Your task to perform on an android device: toggle location history Image 0: 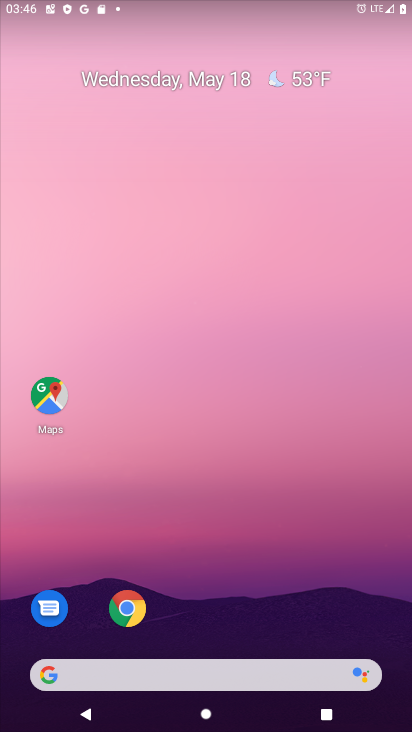
Step 0: click (48, 398)
Your task to perform on an android device: toggle location history Image 1: 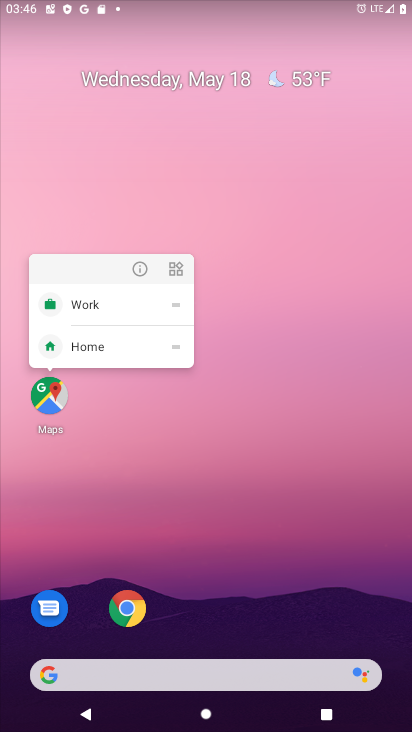
Step 1: click (47, 398)
Your task to perform on an android device: toggle location history Image 2: 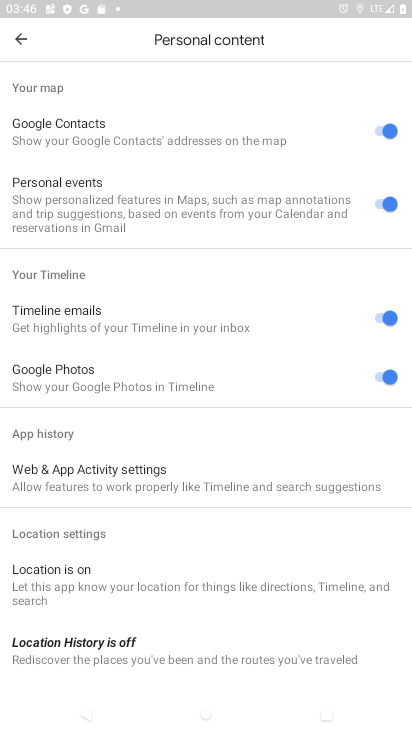
Step 2: click (86, 653)
Your task to perform on an android device: toggle location history Image 3: 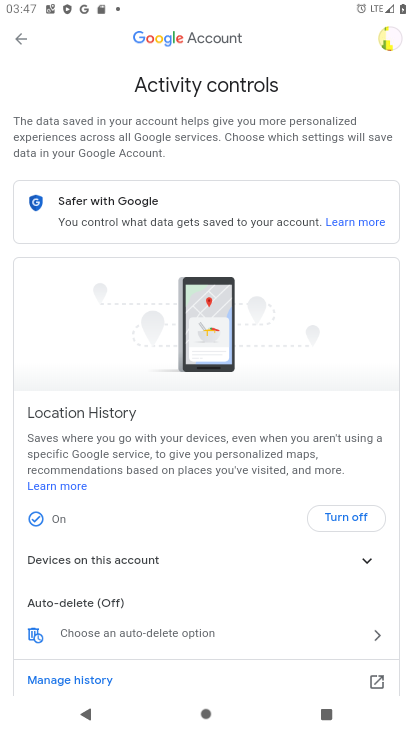
Step 3: click (339, 514)
Your task to perform on an android device: toggle location history Image 4: 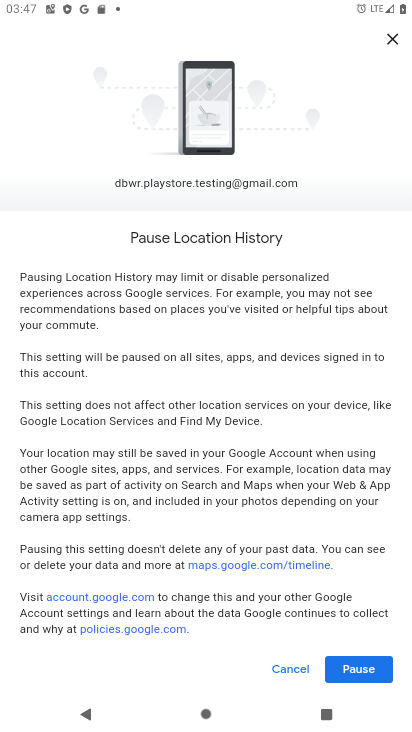
Step 4: click (353, 667)
Your task to perform on an android device: toggle location history Image 5: 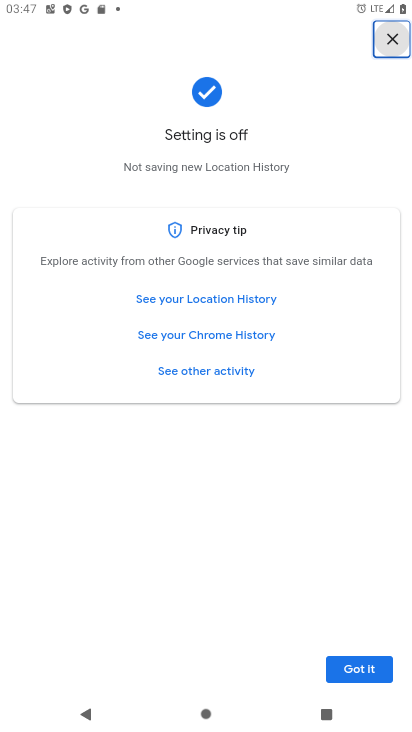
Step 5: click (353, 667)
Your task to perform on an android device: toggle location history Image 6: 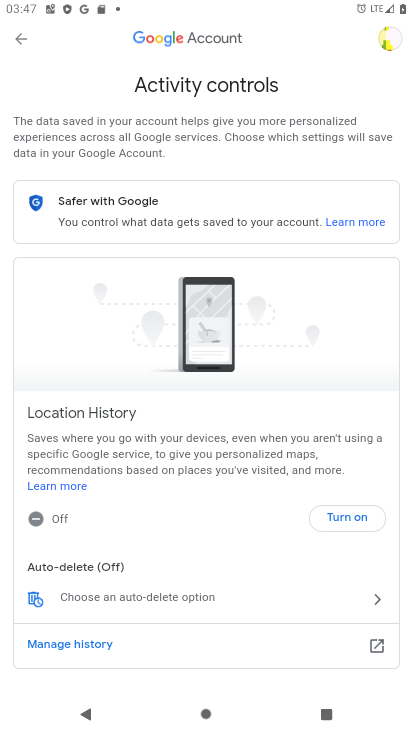
Step 6: task complete